Your task to perform on an android device: Go to privacy settings Image 0: 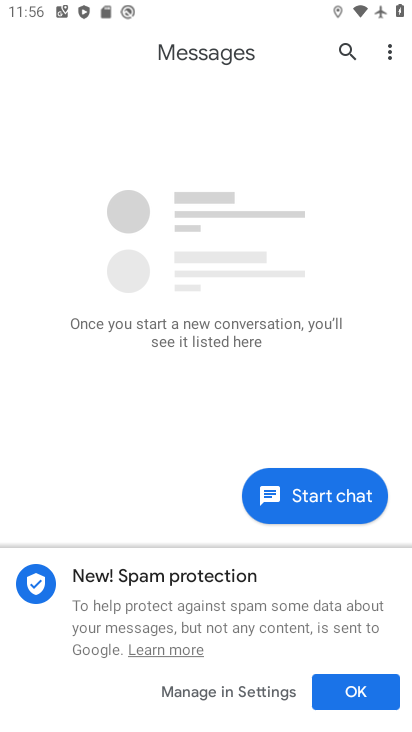
Step 0: press back button
Your task to perform on an android device: Go to privacy settings Image 1: 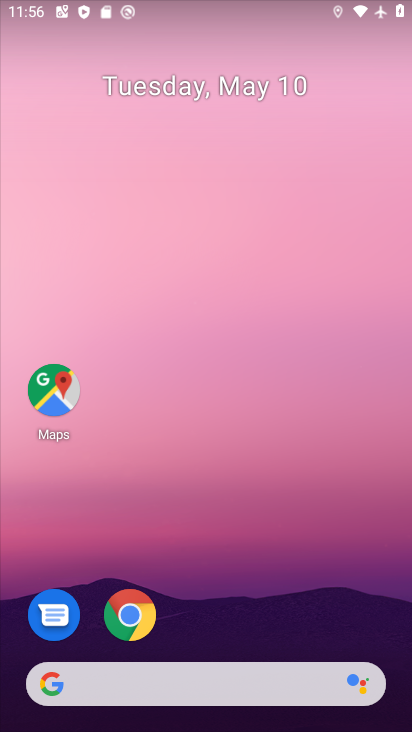
Step 1: drag from (236, 538) to (224, 42)
Your task to perform on an android device: Go to privacy settings Image 2: 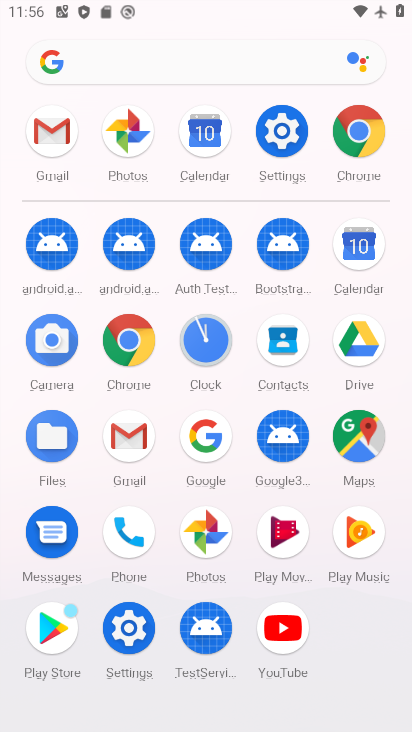
Step 2: click (358, 130)
Your task to perform on an android device: Go to privacy settings Image 3: 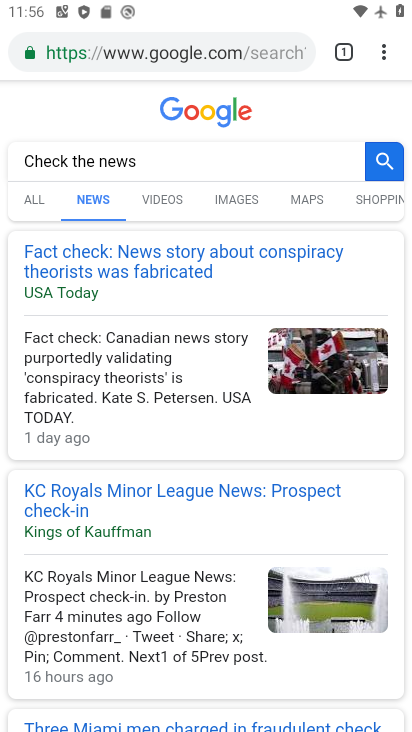
Step 3: drag from (382, 41) to (200, 570)
Your task to perform on an android device: Go to privacy settings Image 4: 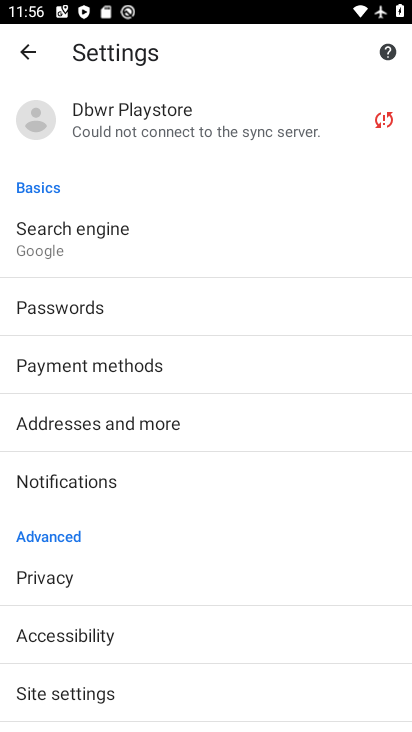
Step 4: click (91, 580)
Your task to perform on an android device: Go to privacy settings Image 5: 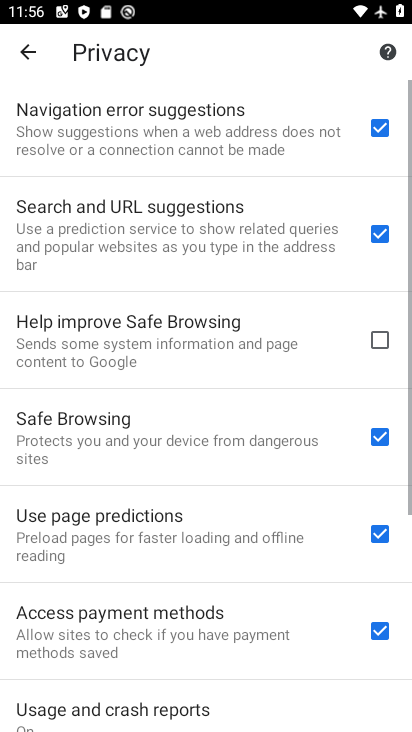
Step 5: task complete